Your task to perform on an android device: Open location settings Image 0: 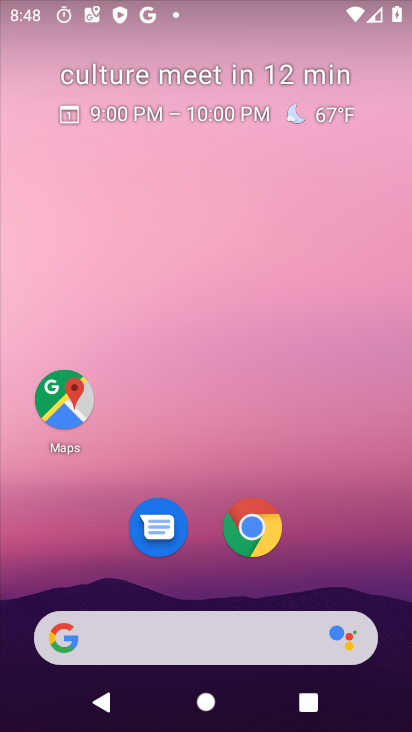
Step 0: drag from (234, 628) to (226, 52)
Your task to perform on an android device: Open location settings Image 1: 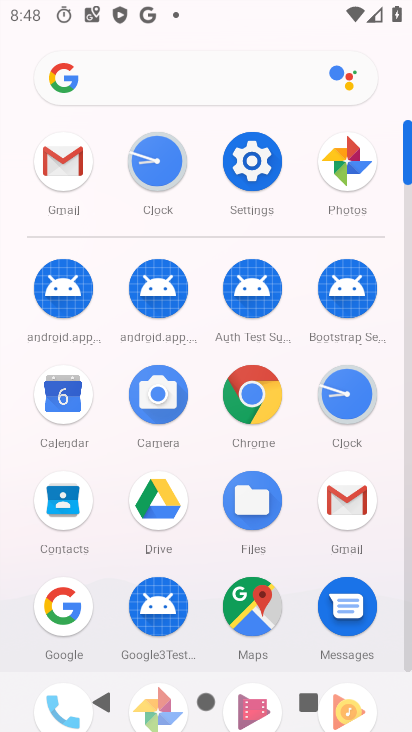
Step 1: click (251, 154)
Your task to perform on an android device: Open location settings Image 2: 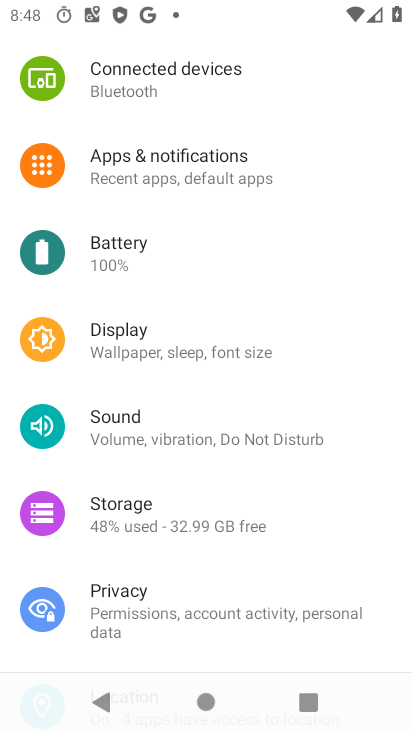
Step 2: drag from (152, 626) to (154, 306)
Your task to perform on an android device: Open location settings Image 3: 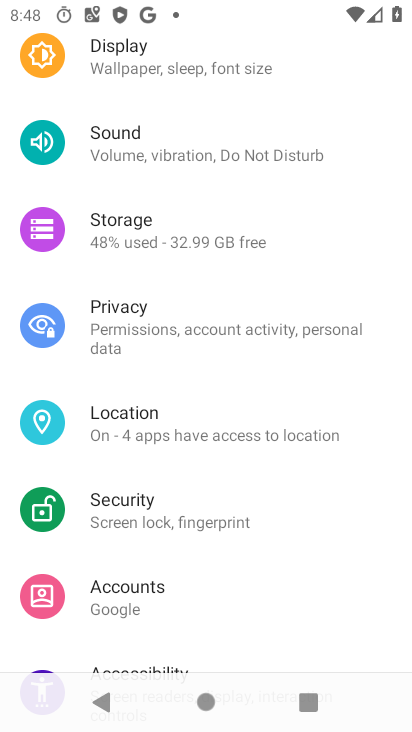
Step 3: click (115, 415)
Your task to perform on an android device: Open location settings Image 4: 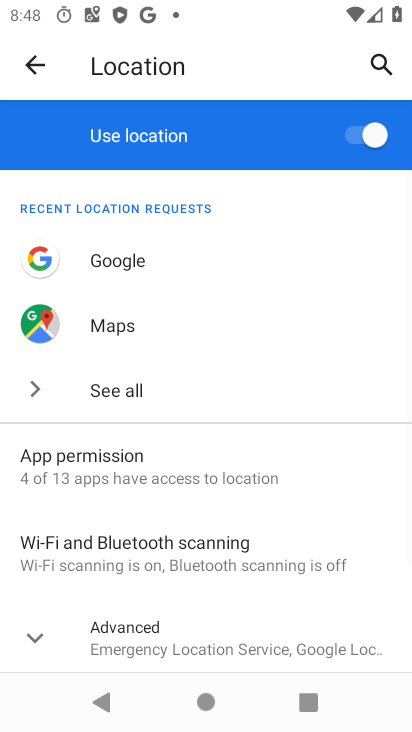
Step 4: task complete